Your task to perform on an android device: see sites visited before in the chrome app Image 0: 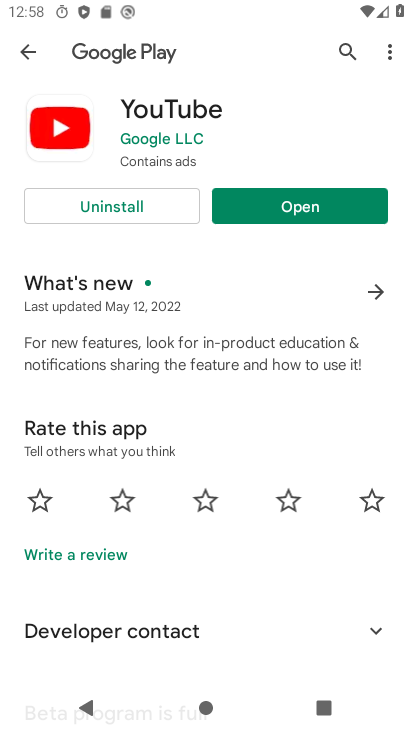
Step 0: press home button
Your task to perform on an android device: see sites visited before in the chrome app Image 1: 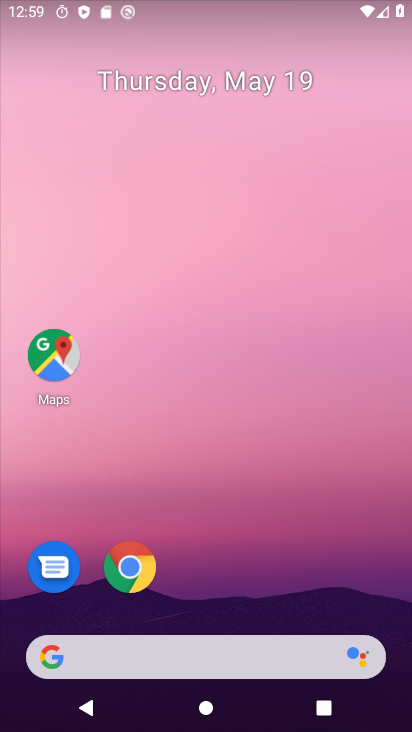
Step 1: click (135, 579)
Your task to perform on an android device: see sites visited before in the chrome app Image 2: 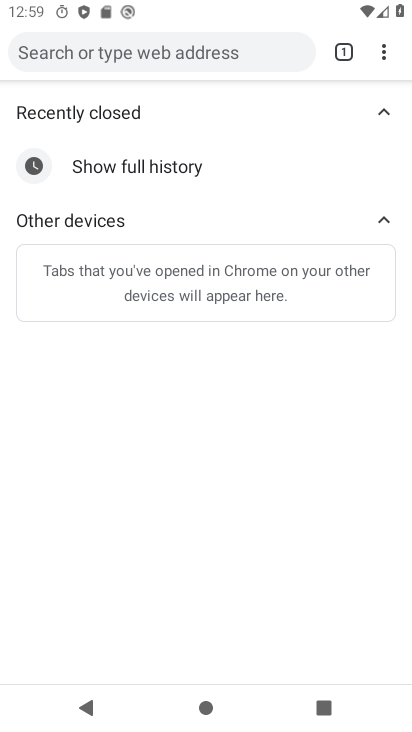
Step 2: task complete